Your task to perform on an android device: Open the calendar app, open the side menu, and click the "Day" option Image 0: 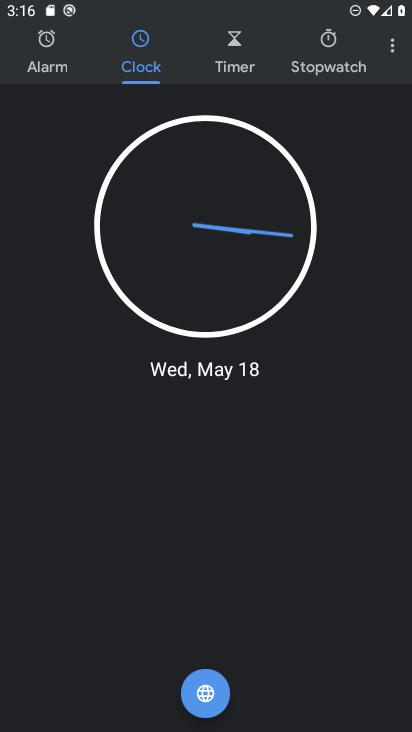
Step 0: press home button
Your task to perform on an android device: Open the calendar app, open the side menu, and click the "Day" option Image 1: 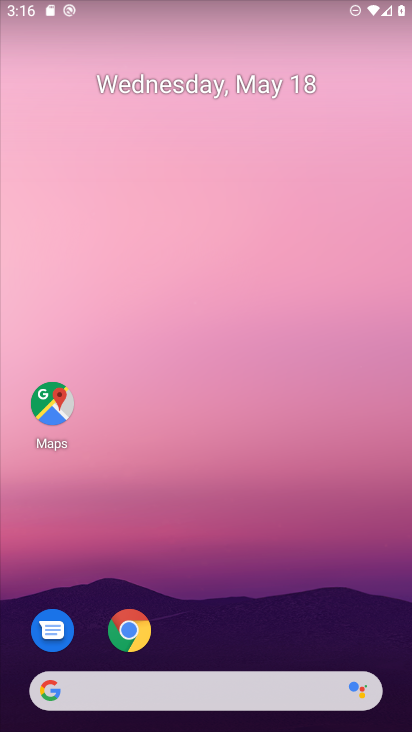
Step 1: drag from (210, 624) to (308, 77)
Your task to perform on an android device: Open the calendar app, open the side menu, and click the "Day" option Image 2: 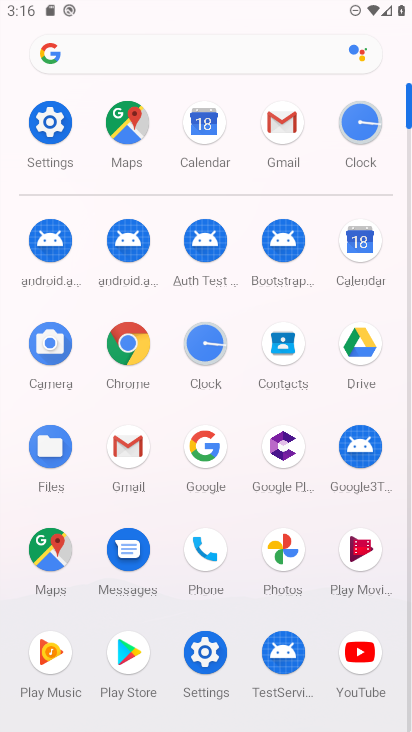
Step 2: click (359, 242)
Your task to perform on an android device: Open the calendar app, open the side menu, and click the "Day" option Image 3: 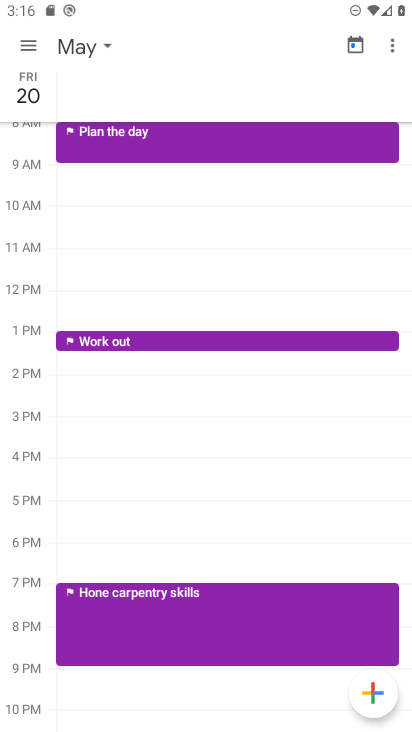
Step 3: click (30, 40)
Your task to perform on an android device: Open the calendar app, open the side menu, and click the "Day" option Image 4: 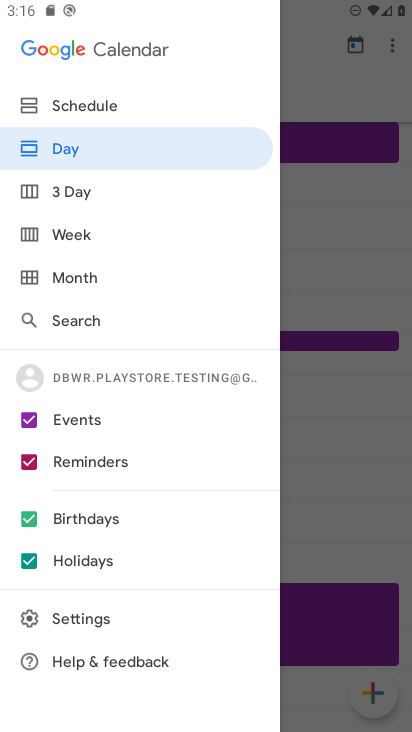
Step 4: click (71, 145)
Your task to perform on an android device: Open the calendar app, open the side menu, and click the "Day" option Image 5: 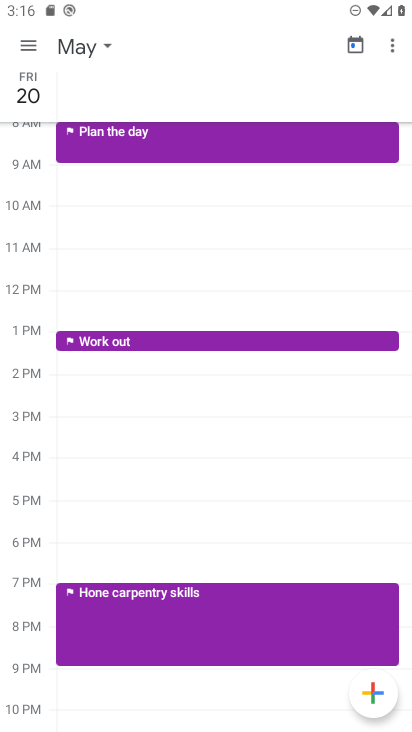
Step 5: task complete